Your task to perform on an android device: Open battery settings Image 0: 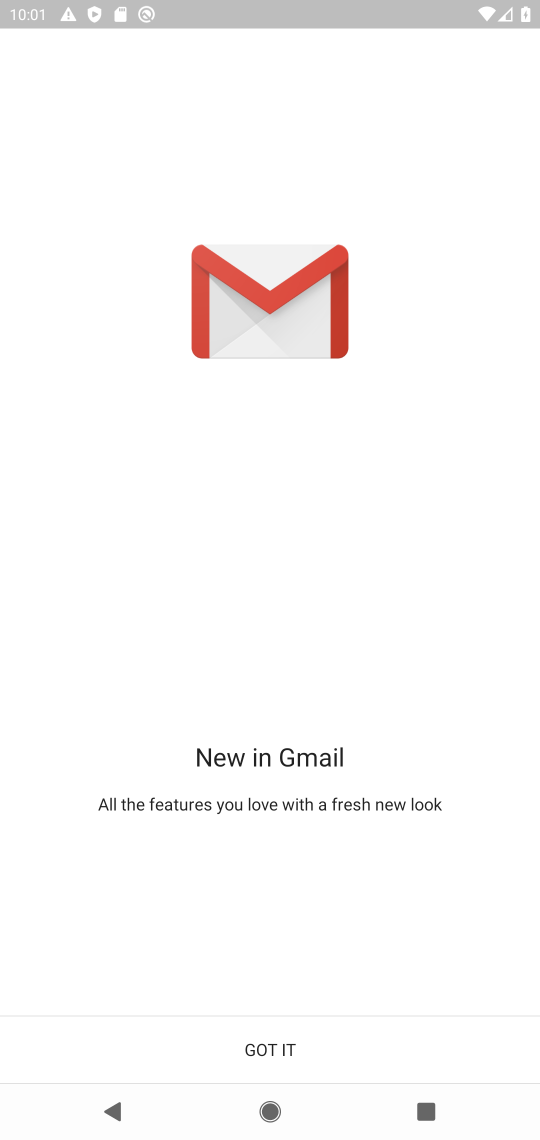
Step 0: press home button
Your task to perform on an android device: Open battery settings Image 1: 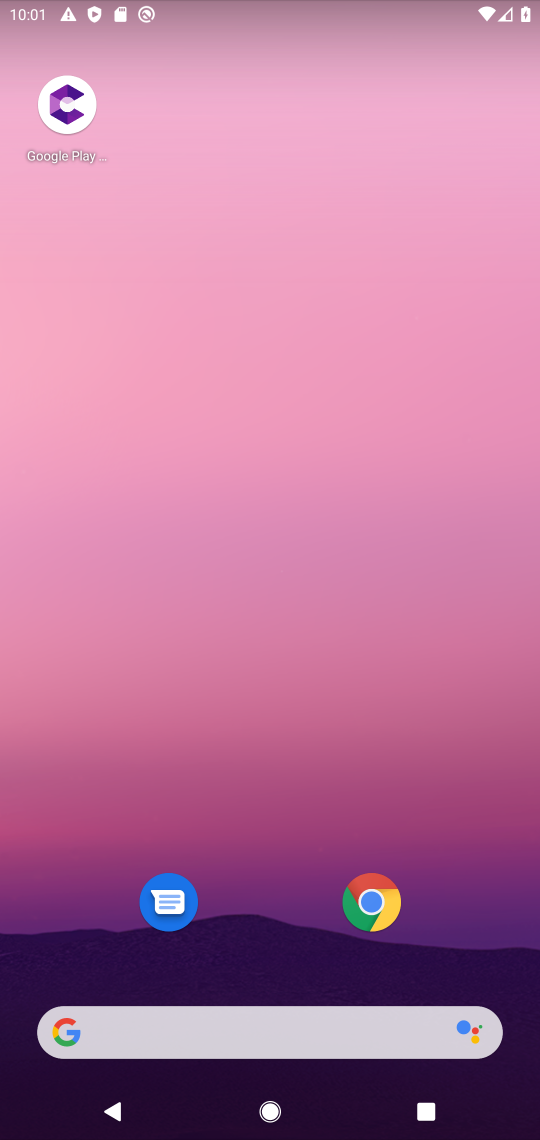
Step 1: drag from (237, 873) to (295, 320)
Your task to perform on an android device: Open battery settings Image 2: 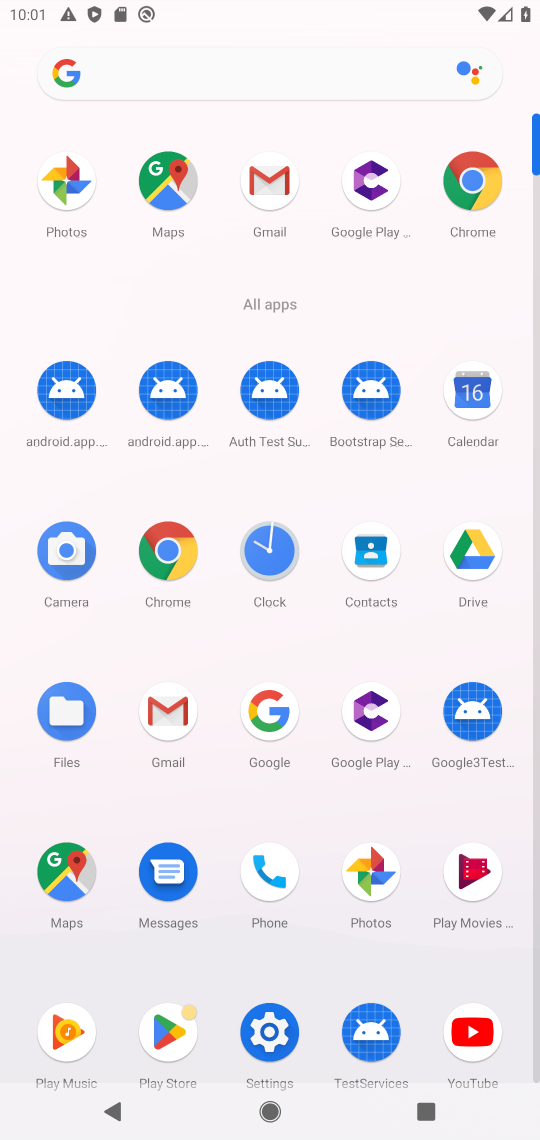
Step 2: click (256, 1023)
Your task to perform on an android device: Open battery settings Image 3: 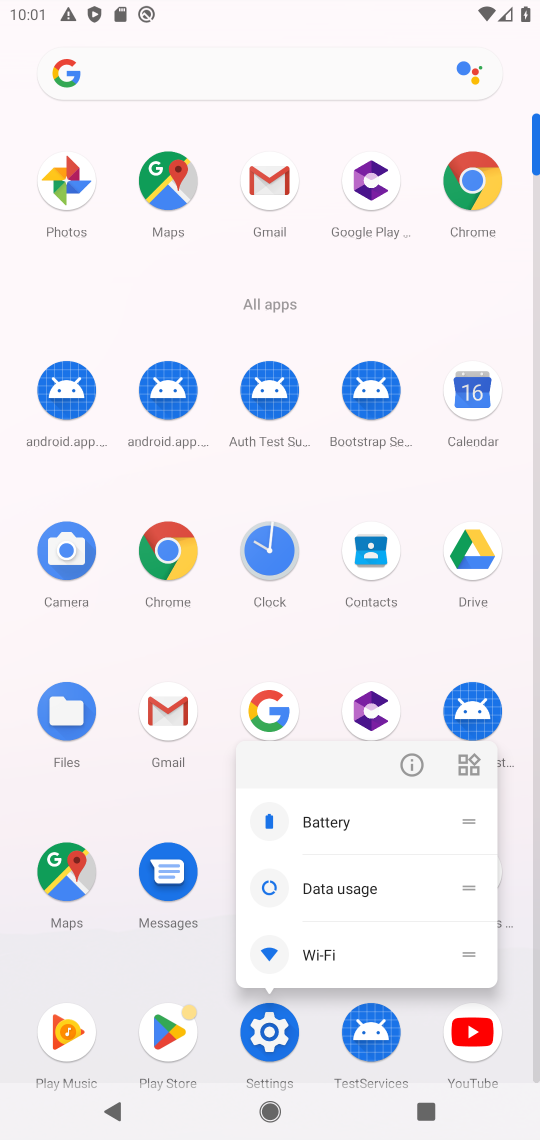
Step 3: click (288, 1008)
Your task to perform on an android device: Open battery settings Image 4: 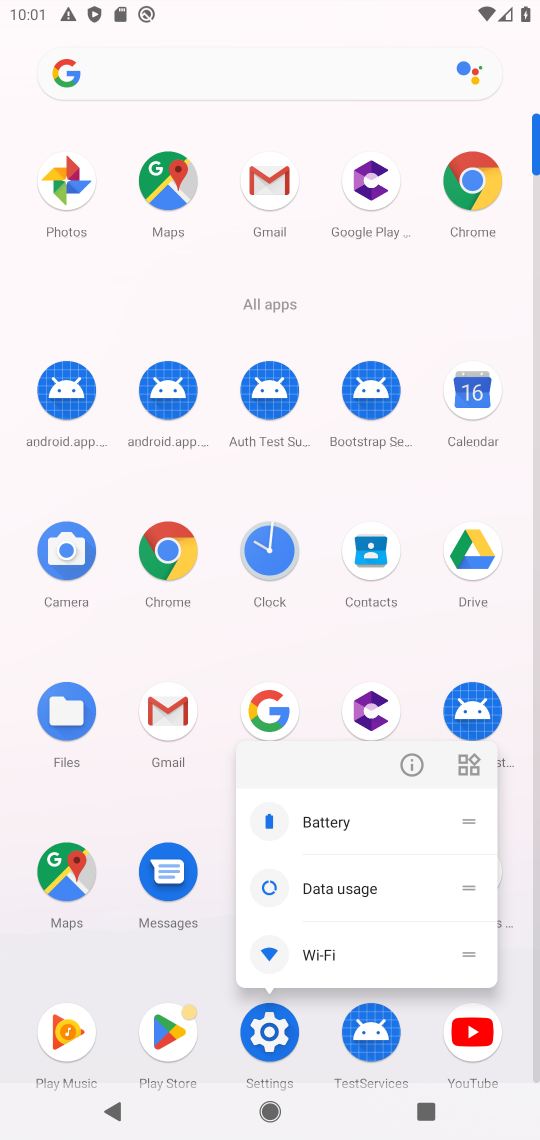
Step 4: click (288, 1013)
Your task to perform on an android device: Open battery settings Image 5: 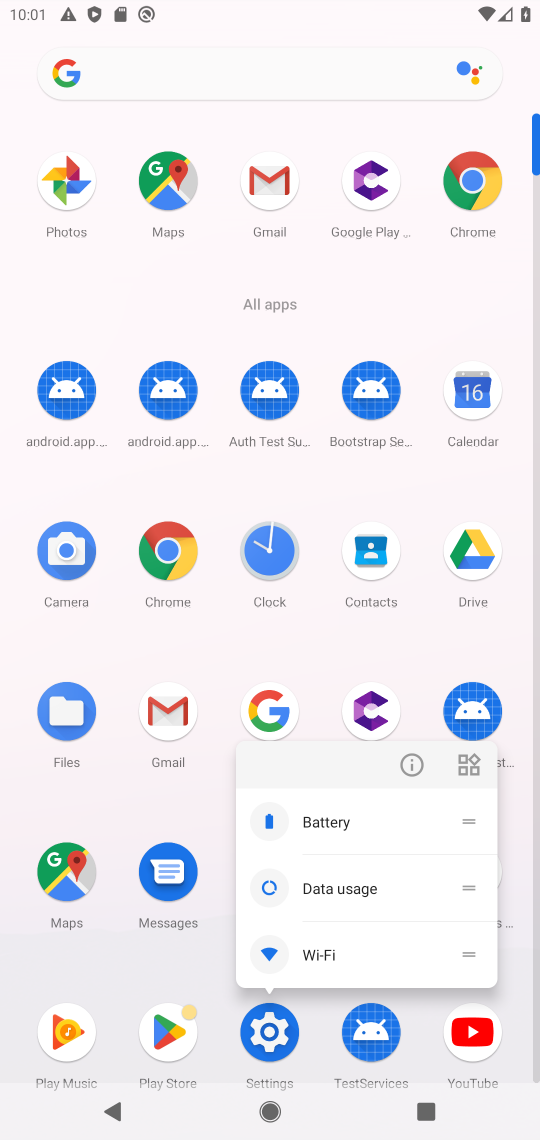
Step 5: click (264, 1030)
Your task to perform on an android device: Open battery settings Image 6: 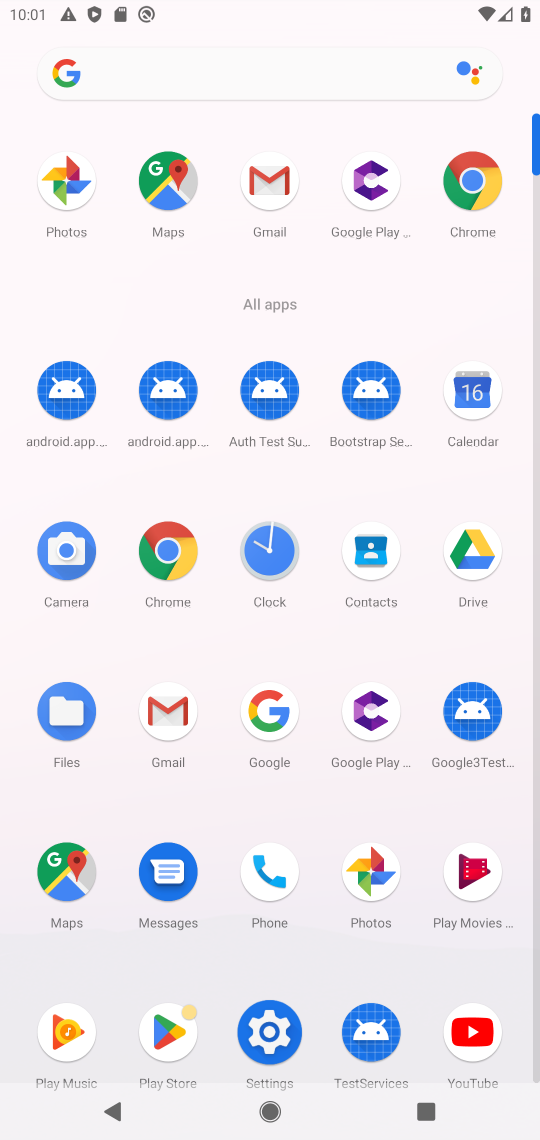
Step 6: click (278, 1022)
Your task to perform on an android device: Open battery settings Image 7: 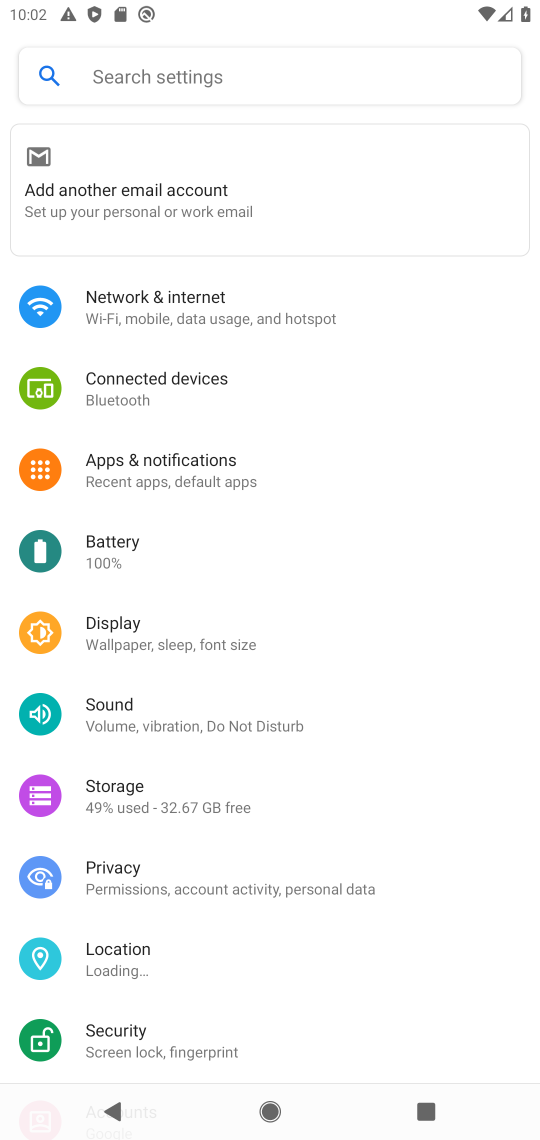
Step 7: click (103, 542)
Your task to perform on an android device: Open battery settings Image 8: 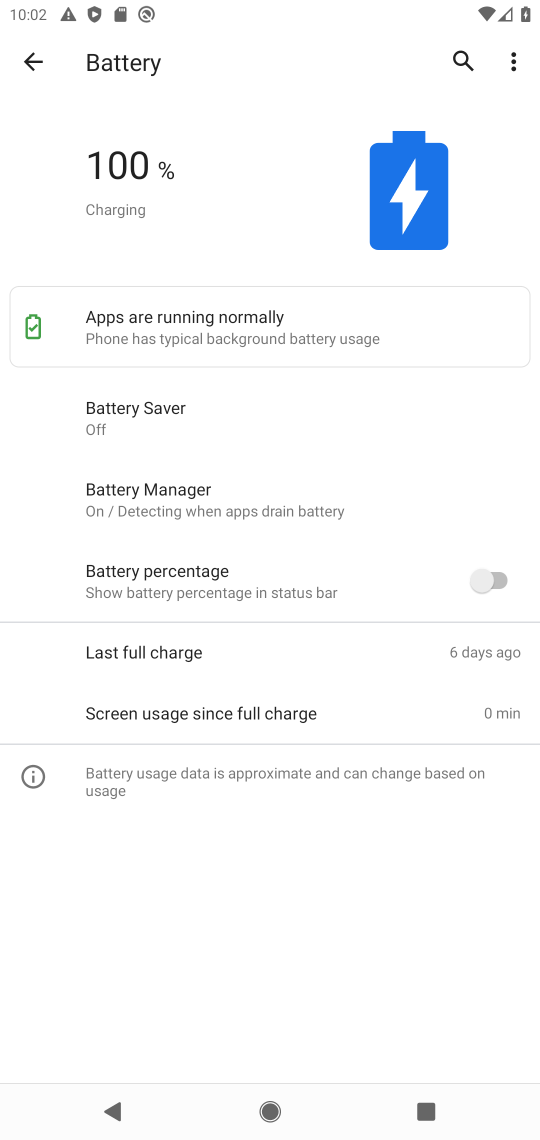
Step 8: task complete